Your task to perform on an android device: Go to battery settings Image 0: 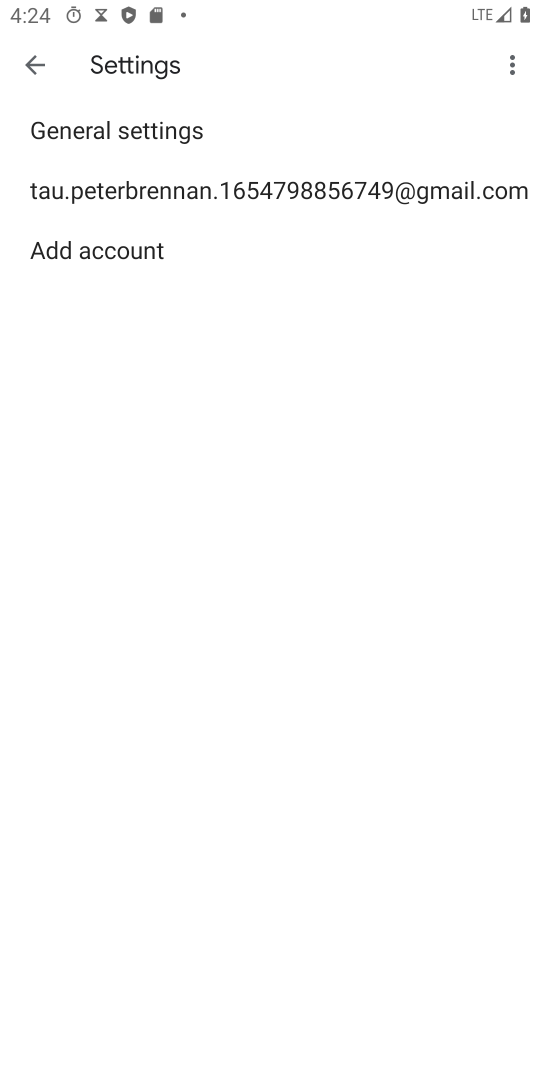
Step 0: press home button
Your task to perform on an android device: Go to battery settings Image 1: 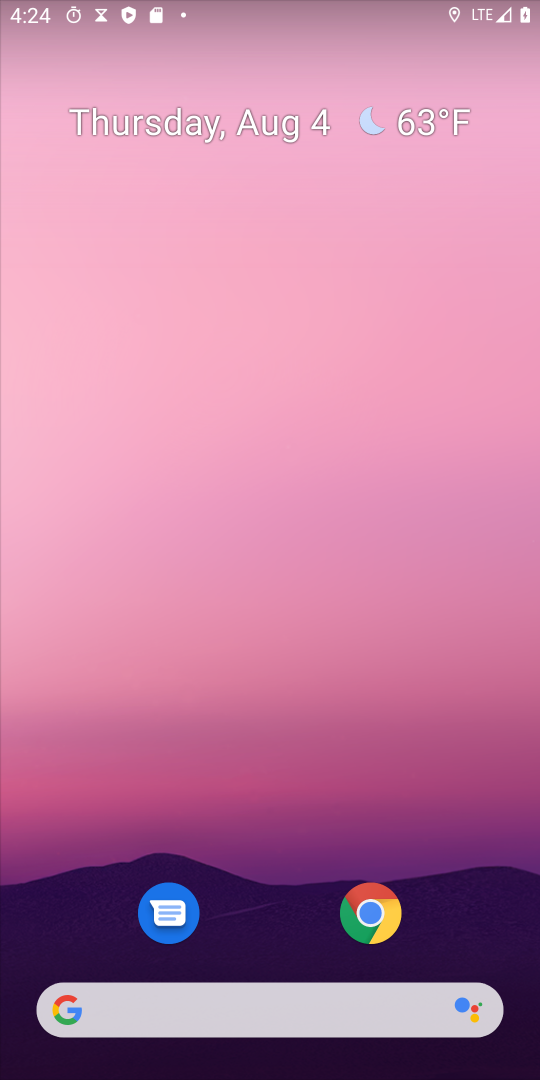
Step 1: drag from (259, 1001) to (362, 144)
Your task to perform on an android device: Go to battery settings Image 2: 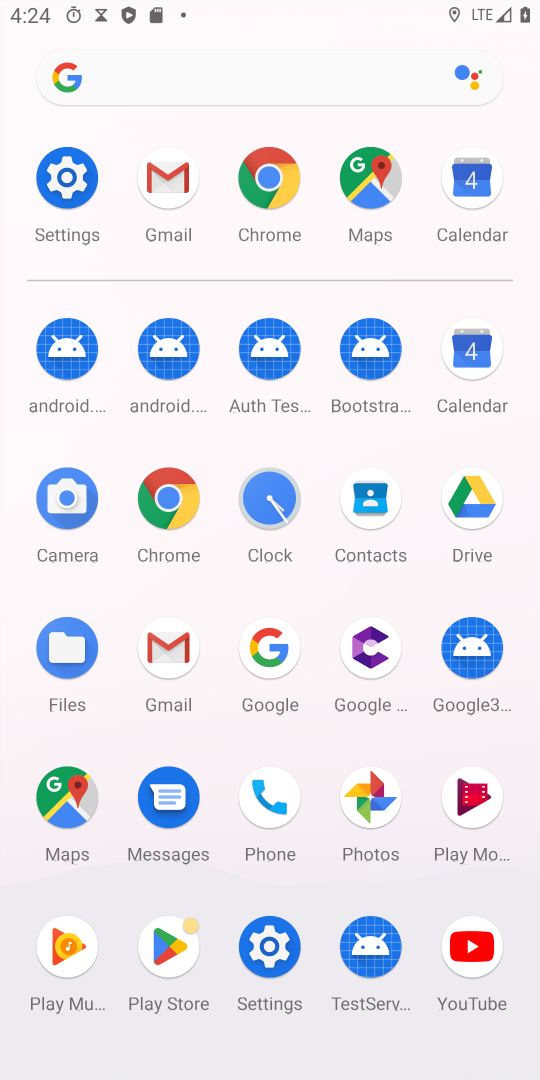
Step 2: click (40, 170)
Your task to perform on an android device: Go to battery settings Image 3: 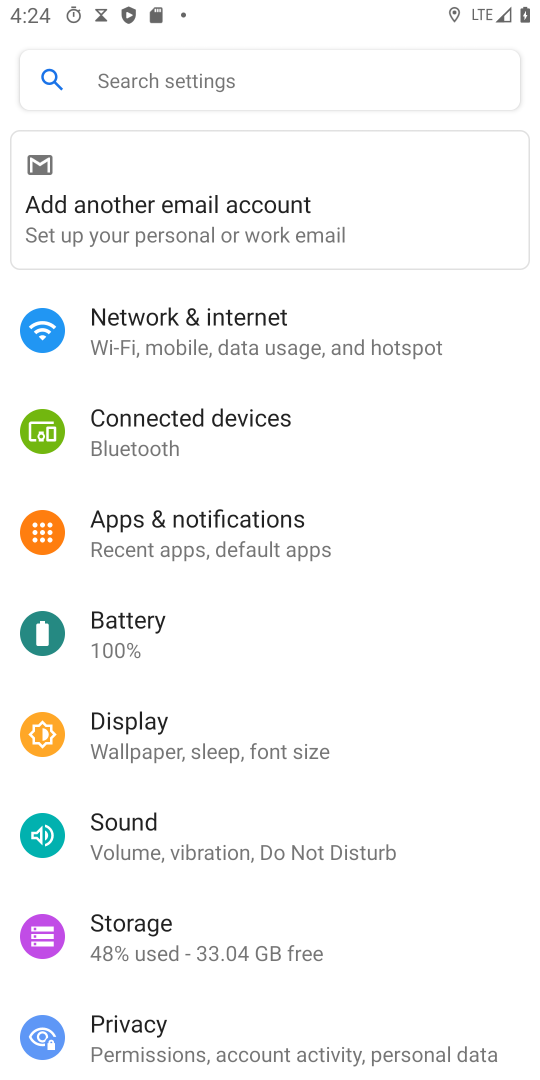
Step 3: click (136, 622)
Your task to perform on an android device: Go to battery settings Image 4: 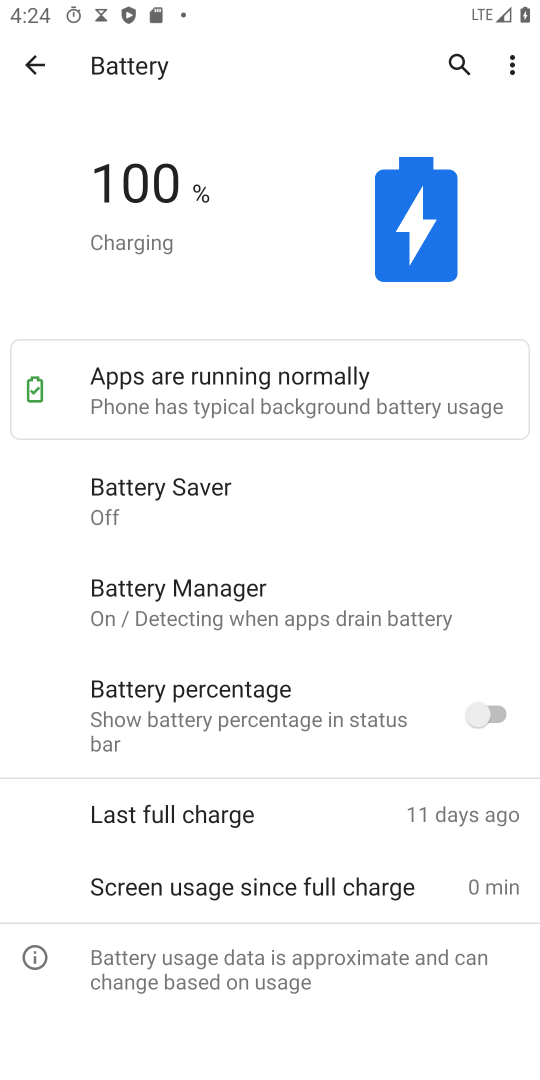
Step 4: task complete